Your task to perform on an android device: Open Chrome and go to settings Image 0: 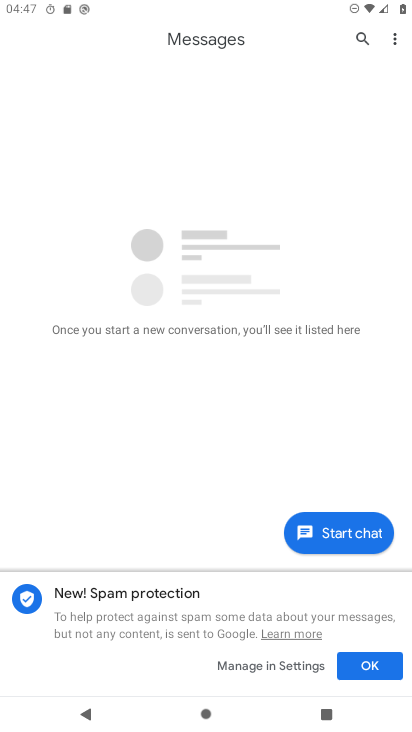
Step 0: press home button
Your task to perform on an android device: Open Chrome and go to settings Image 1: 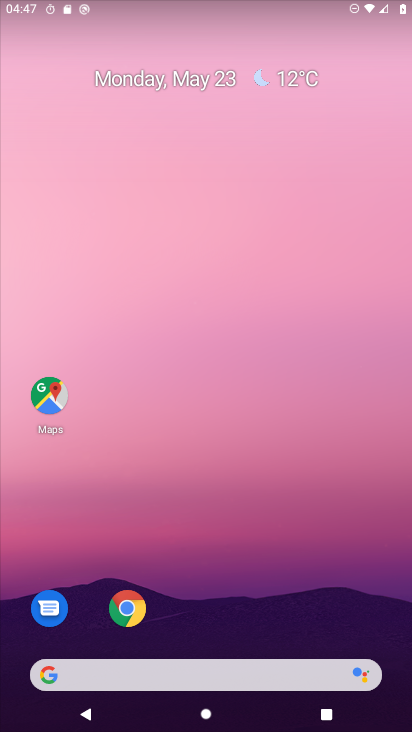
Step 1: click (133, 597)
Your task to perform on an android device: Open Chrome and go to settings Image 2: 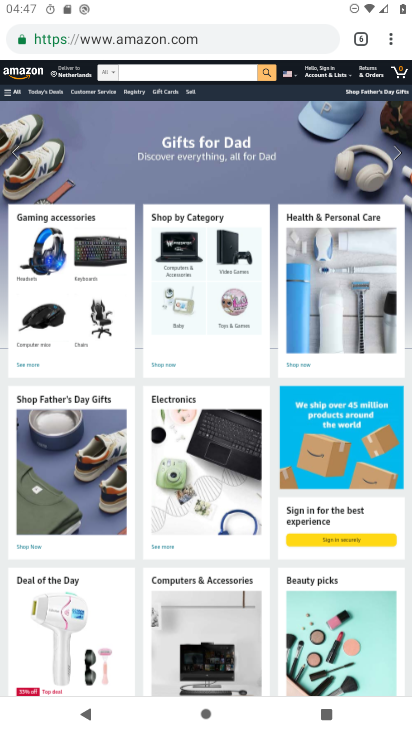
Step 2: click (393, 40)
Your task to perform on an android device: Open Chrome and go to settings Image 3: 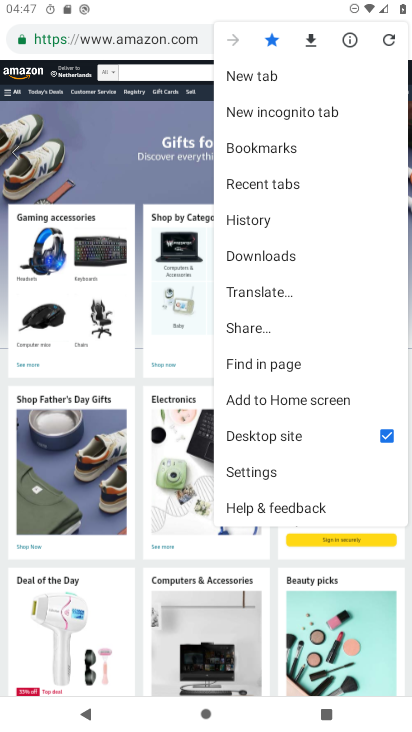
Step 3: click (297, 472)
Your task to perform on an android device: Open Chrome and go to settings Image 4: 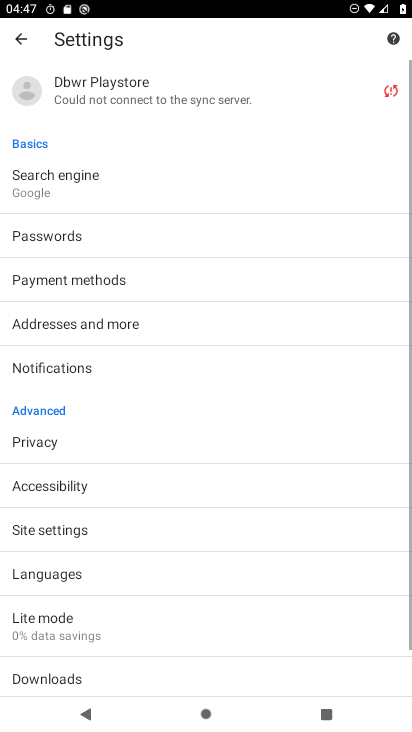
Step 4: task complete